Your task to perform on an android device: Go to Google maps Image 0: 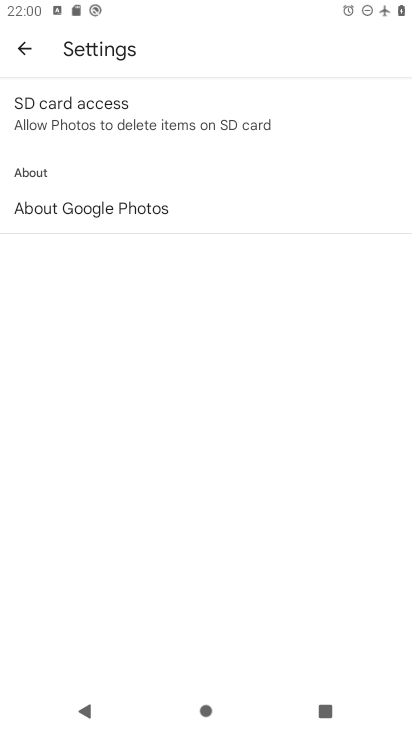
Step 0: press home button
Your task to perform on an android device: Go to Google maps Image 1: 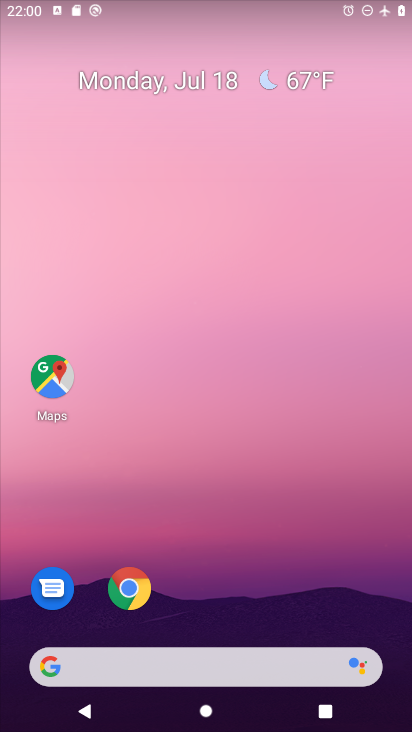
Step 1: click (49, 377)
Your task to perform on an android device: Go to Google maps Image 2: 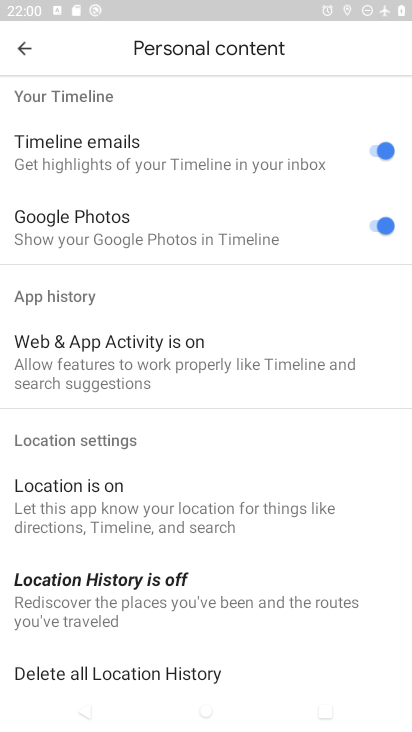
Step 2: task complete